Your task to perform on an android device: toggle pop-ups in chrome Image 0: 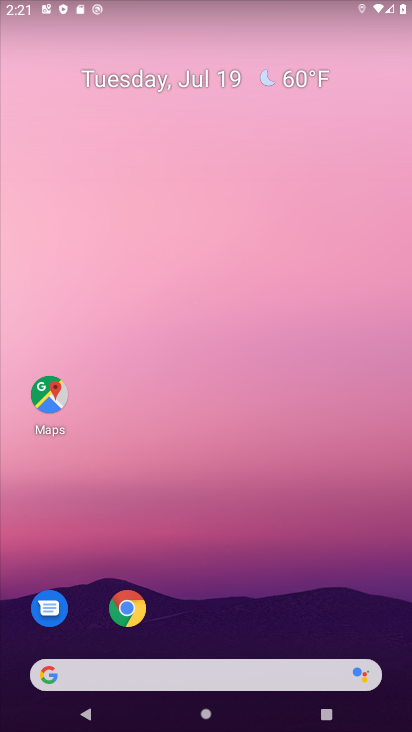
Step 0: drag from (247, 523) to (240, 64)
Your task to perform on an android device: toggle pop-ups in chrome Image 1: 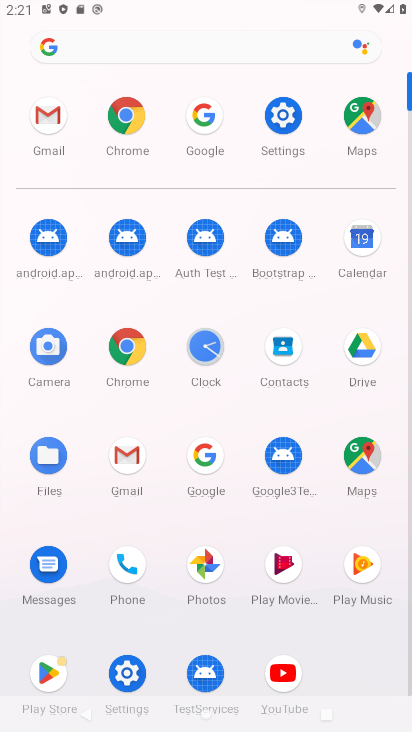
Step 1: click (119, 115)
Your task to perform on an android device: toggle pop-ups in chrome Image 2: 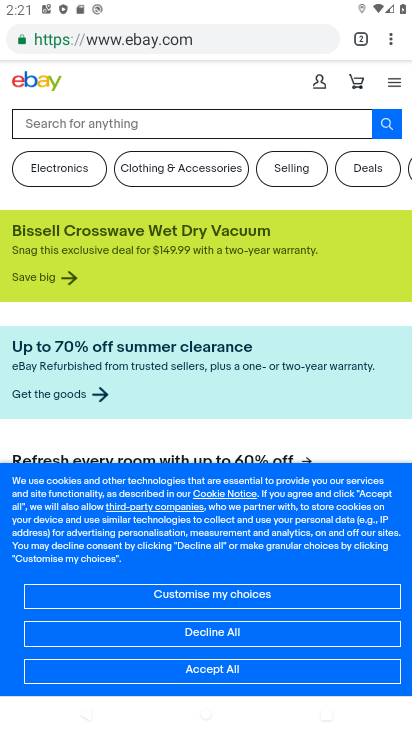
Step 2: drag from (383, 35) to (255, 471)
Your task to perform on an android device: toggle pop-ups in chrome Image 3: 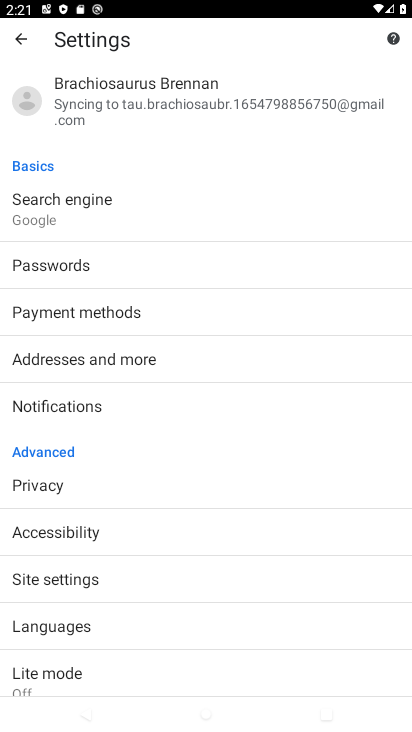
Step 3: drag from (150, 605) to (111, 199)
Your task to perform on an android device: toggle pop-ups in chrome Image 4: 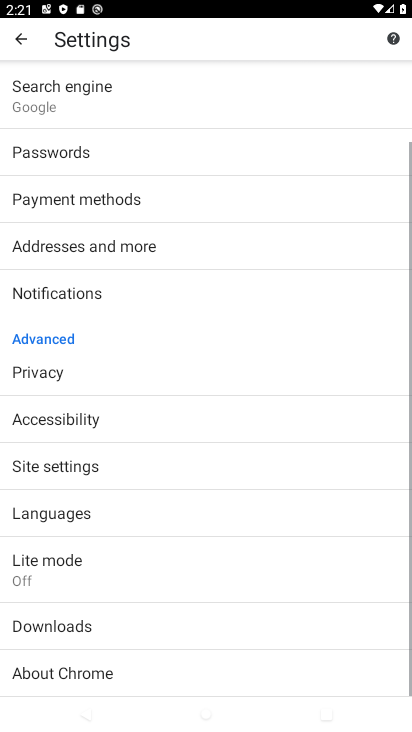
Step 4: click (73, 467)
Your task to perform on an android device: toggle pop-ups in chrome Image 5: 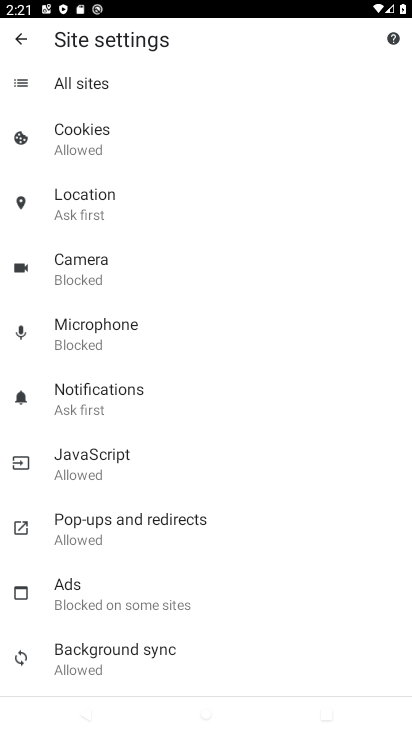
Step 5: click (111, 541)
Your task to perform on an android device: toggle pop-ups in chrome Image 6: 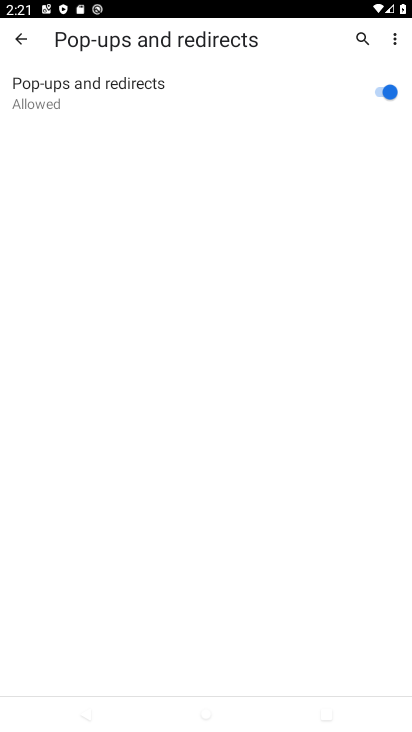
Step 6: click (392, 84)
Your task to perform on an android device: toggle pop-ups in chrome Image 7: 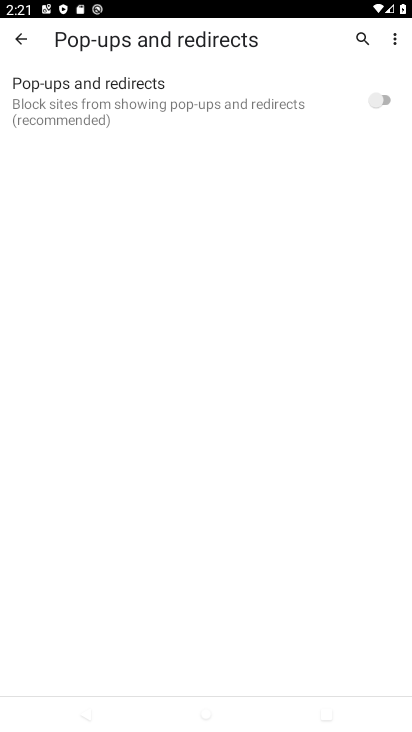
Step 7: task complete